Your task to perform on an android device: See recent photos Image 0: 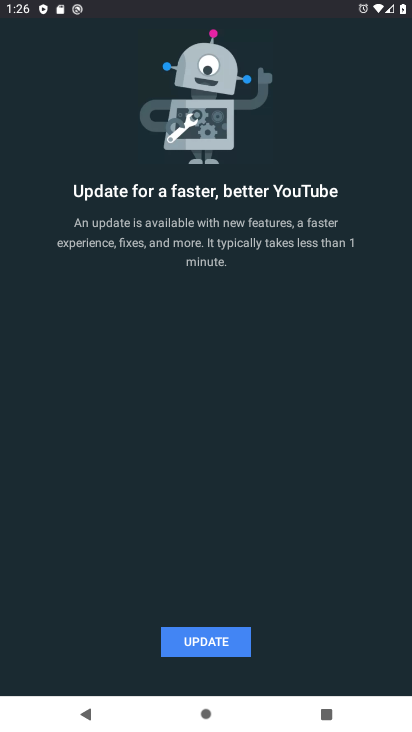
Step 0: press home button
Your task to perform on an android device: See recent photos Image 1: 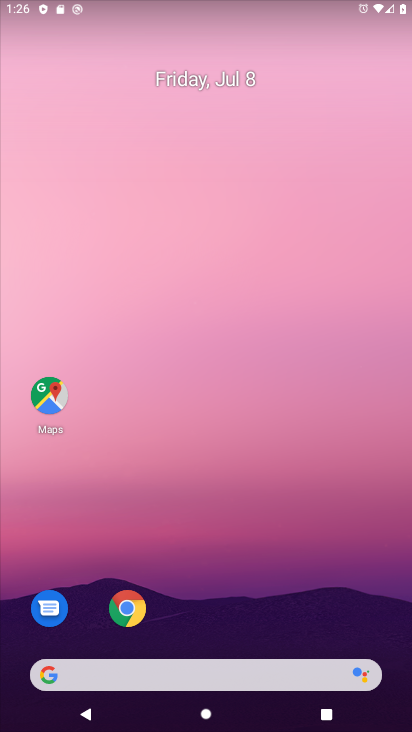
Step 1: drag from (199, 632) to (246, 168)
Your task to perform on an android device: See recent photos Image 2: 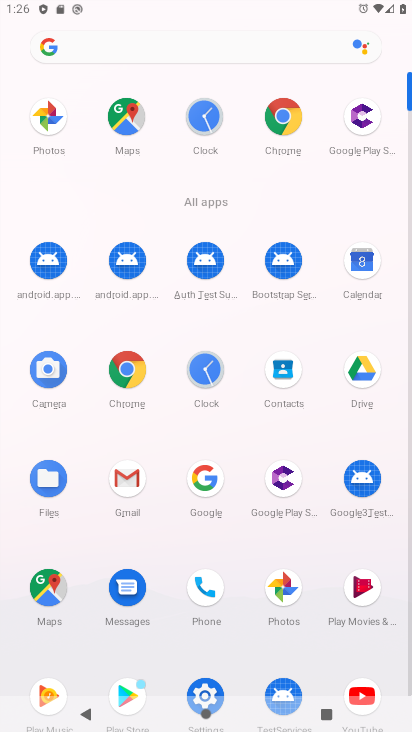
Step 2: click (51, 112)
Your task to perform on an android device: See recent photos Image 3: 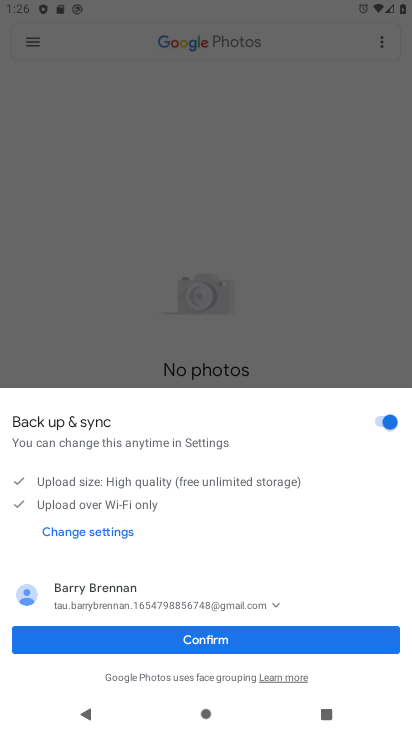
Step 3: click (208, 636)
Your task to perform on an android device: See recent photos Image 4: 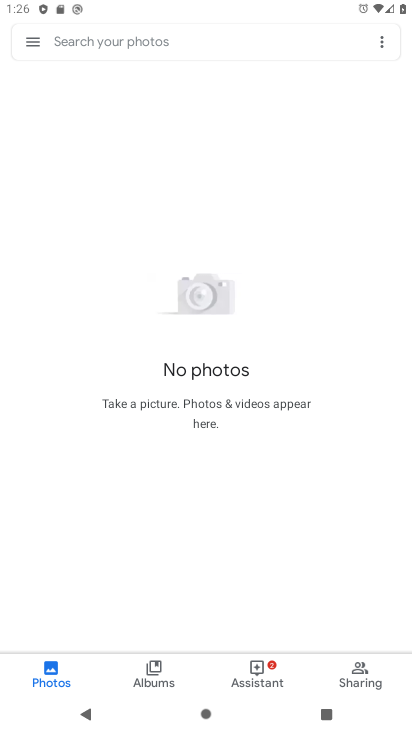
Step 4: task complete